Your task to perform on an android device: allow cookies in the chrome app Image 0: 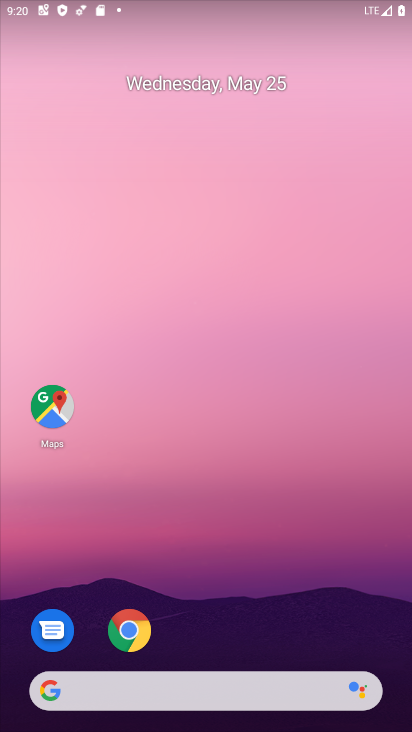
Step 0: click (145, 641)
Your task to perform on an android device: allow cookies in the chrome app Image 1: 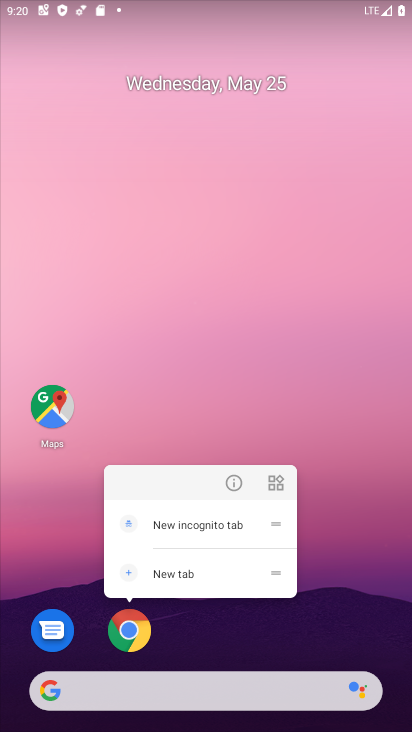
Step 1: click (122, 630)
Your task to perform on an android device: allow cookies in the chrome app Image 2: 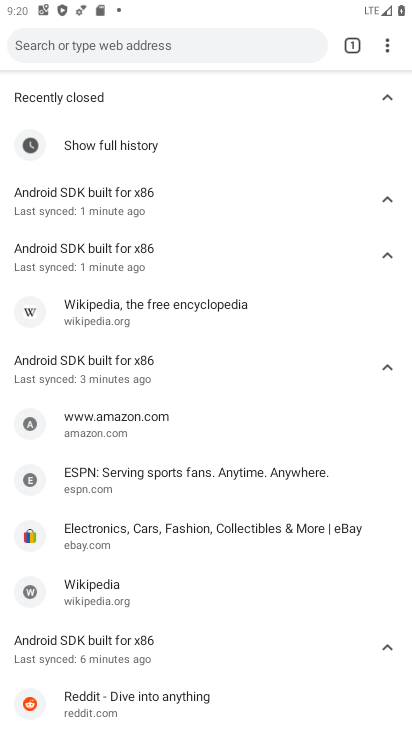
Step 2: drag from (384, 38) to (231, 382)
Your task to perform on an android device: allow cookies in the chrome app Image 3: 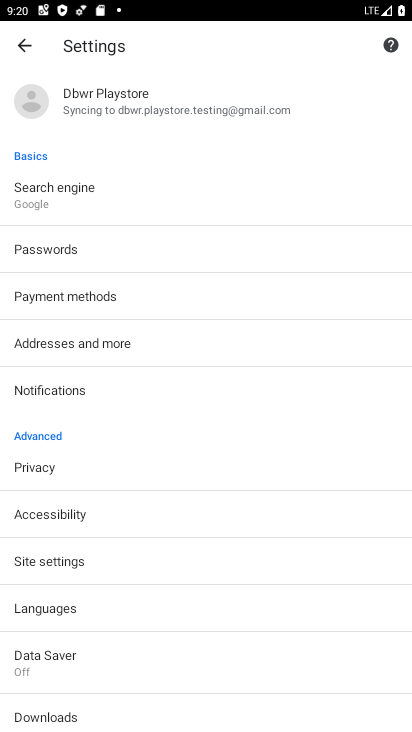
Step 3: click (93, 561)
Your task to perform on an android device: allow cookies in the chrome app Image 4: 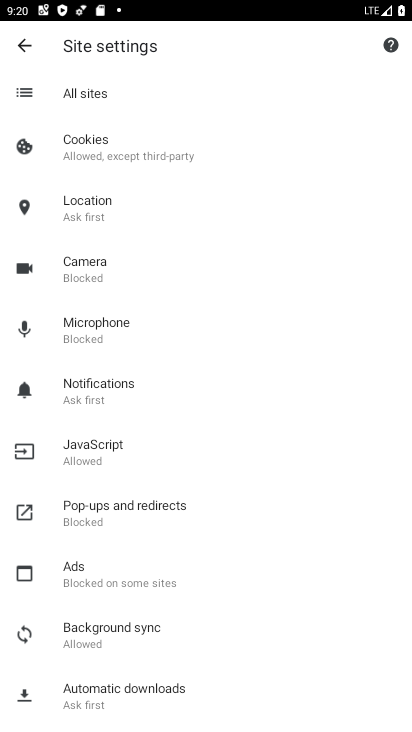
Step 4: click (115, 149)
Your task to perform on an android device: allow cookies in the chrome app Image 5: 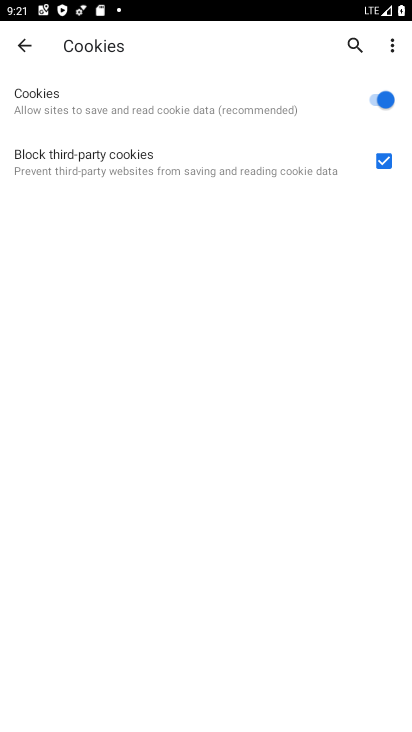
Step 5: task complete